Your task to perform on an android device: Check the news Image 0: 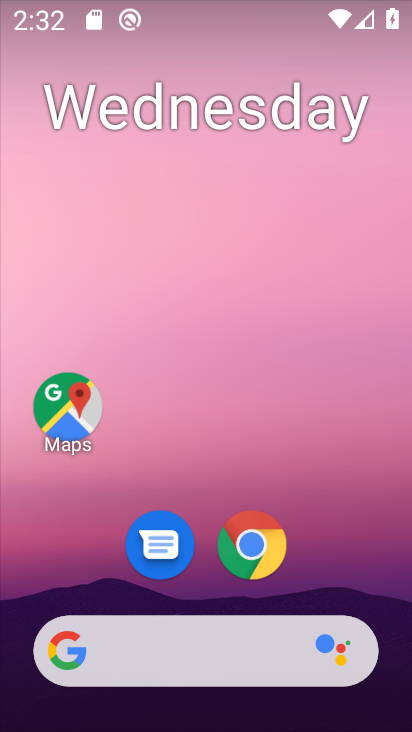
Step 0: drag from (345, 573) to (322, 117)
Your task to perform on an android device: Check the news Image 1: 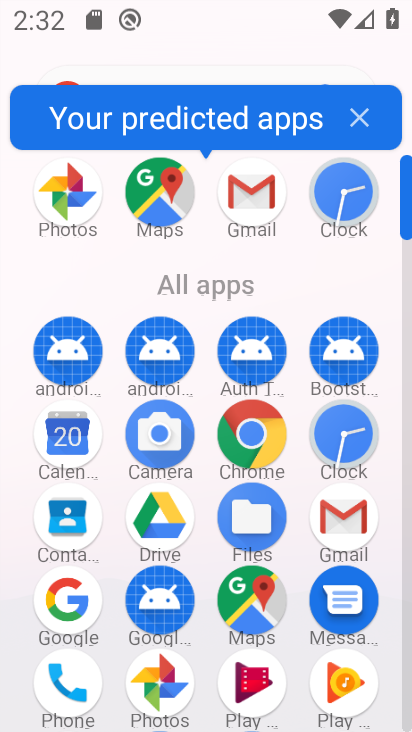
Step 1: drag from (222, 566) to (206, 198)
Your task to perform on an android device: Check the news Image 2: 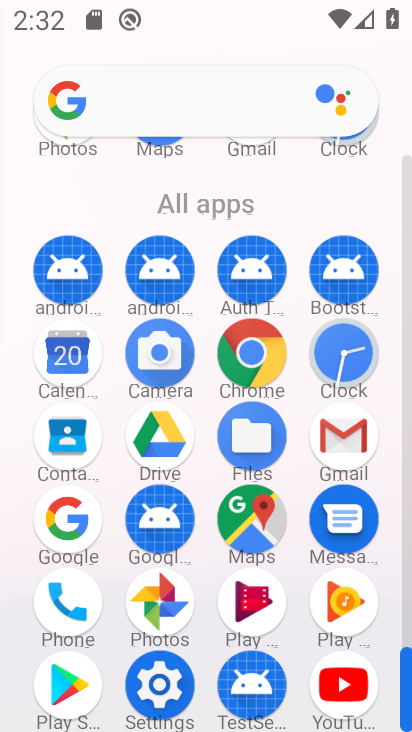
Step 2: click (71, 514)
Your task to perform on an android device: Check the news Image 3: 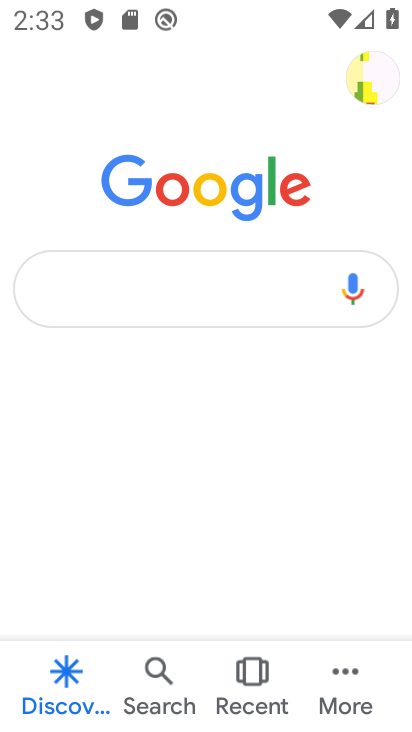
Step 3: click (254, 271)
Your task to perform on an android device: Check the news Image 4: 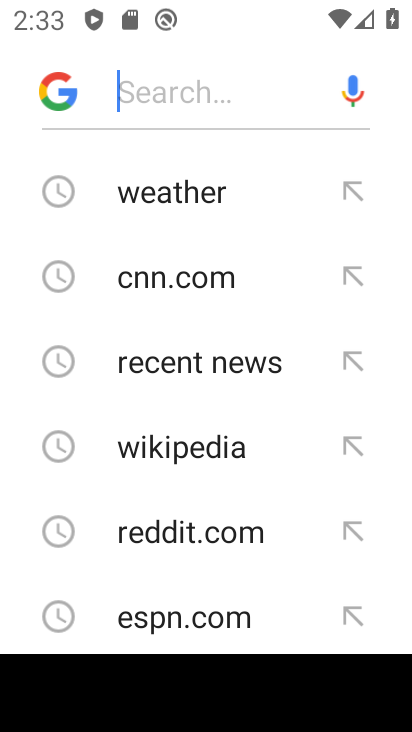
Step 4: drag from (204, 447) to (196, 64)
Your task to perform on an android device: Check the news Image 5: 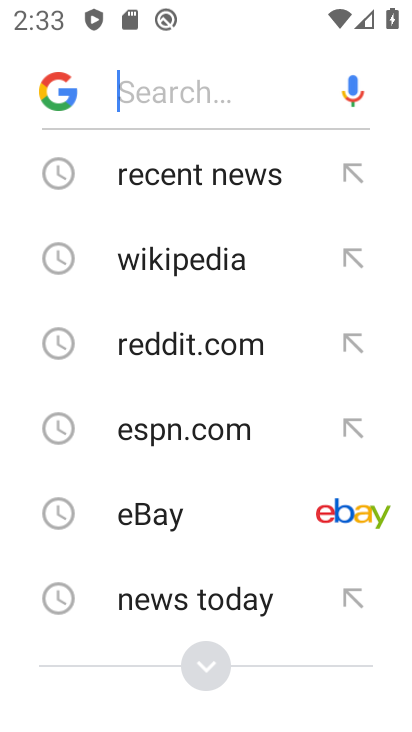
Step 5: click (222, 602)
Your task to perform on an android device: Check the news Image 6: 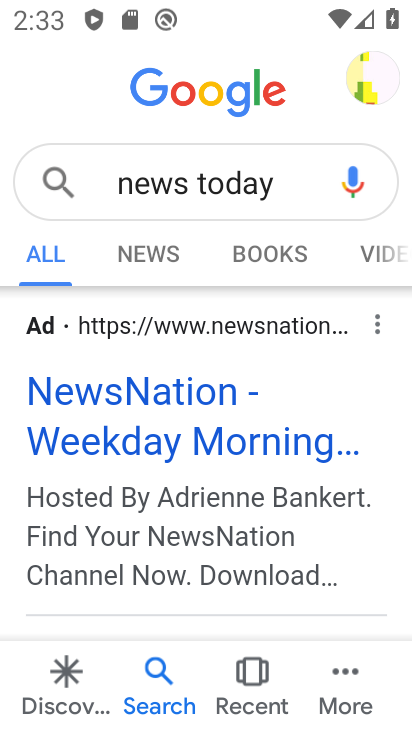
Step 6: task complete